Your task to perform on an android device: Go to internet settings Image 0: 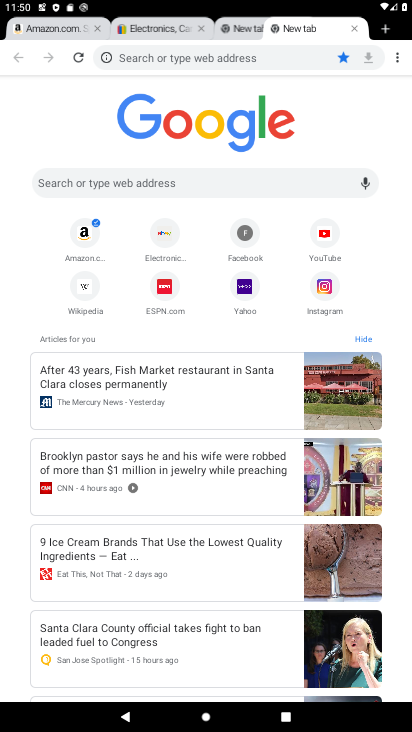
Step 0: press home button
Your task to perform on an android device: Go to internet settings Image 1: 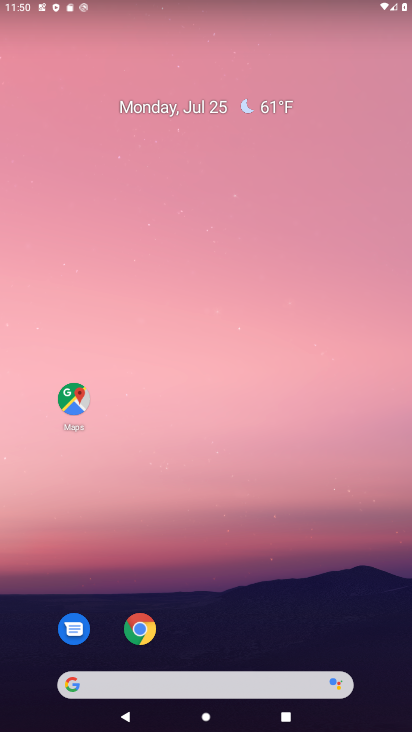
Step 1: drag from (206, 636) to (177, 261)
Your task to perform on an android device: Go to internet settings Image 2: 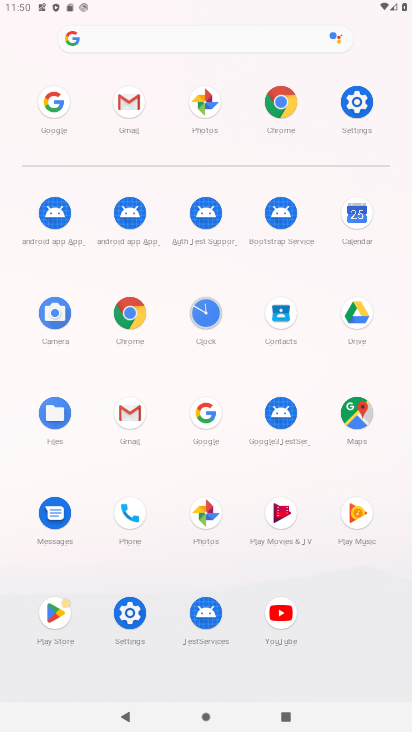
Step 2: click (361, 90)
Your task to perform on an android device: Go to internet settings Image 3: 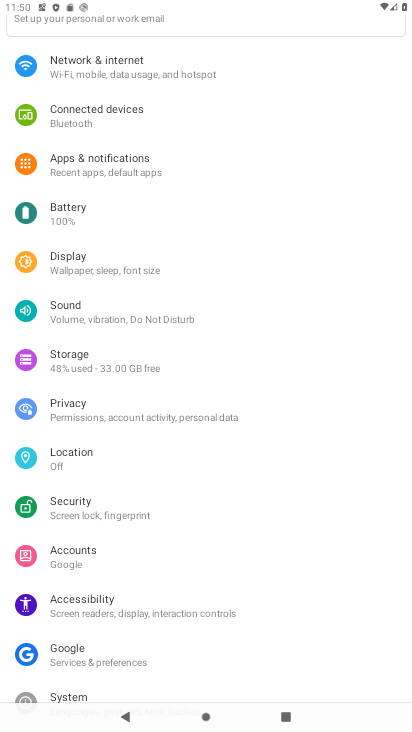
Step 3: click (168, 71)
Your task to perform on an android device: Go to internet settings Image 4: 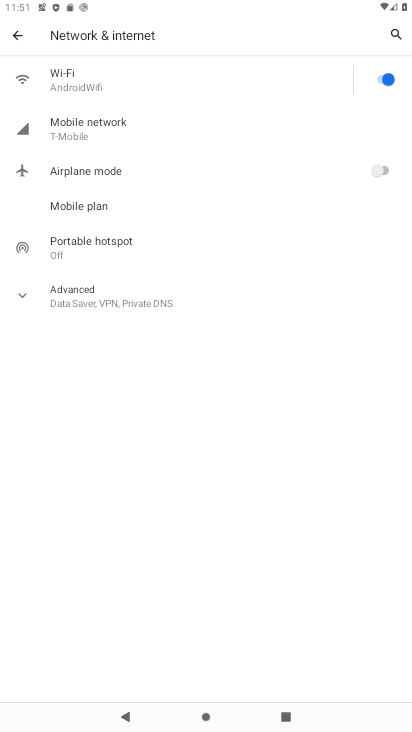
Step 4: task complete